Your task to perform on an android device: Turn off the flashlight Image 0: 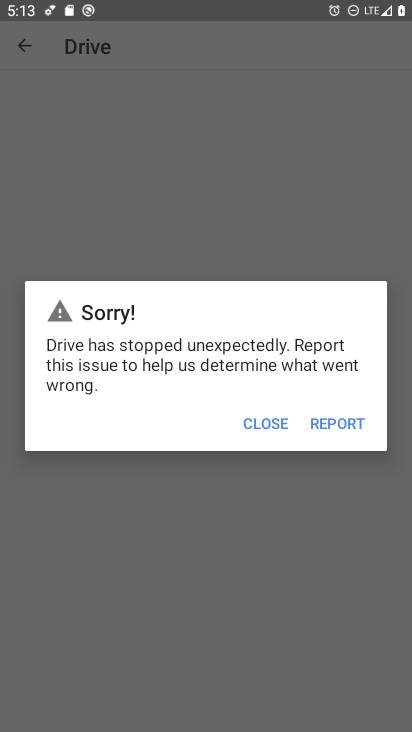
Step 0: drag from (256, 541) to (205, 154)
Your task to perform on an android device: Turn off the flashlight Image 1: 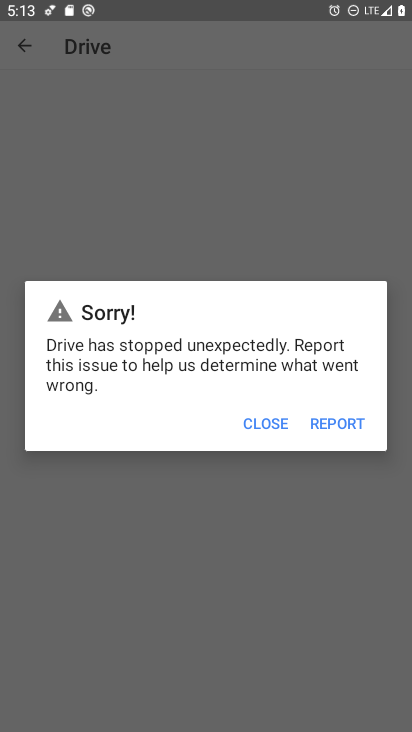
Step 1: task complete